Your task to perform on an android device: turn on the 24-hour format for clock Image 0: 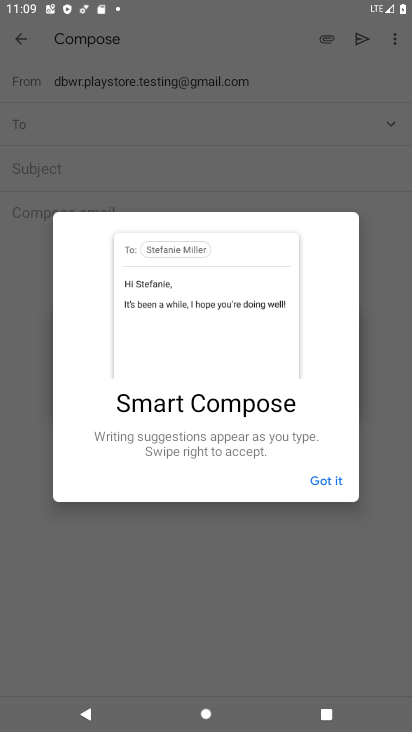
Step 0: press home button
Your task to perform on an android device: turn on the 24-hour format for clock Image 1: 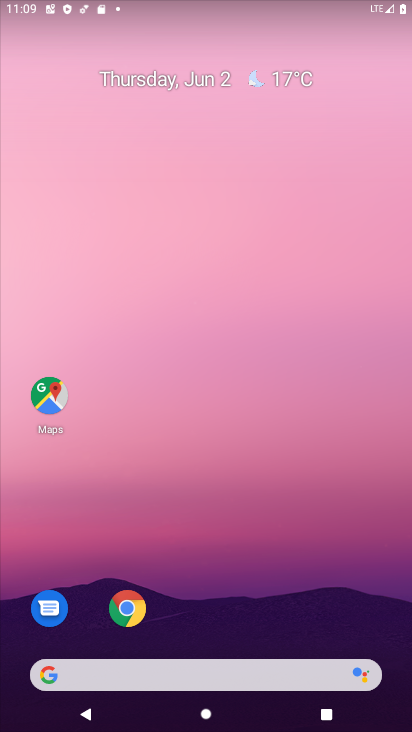
Step 1: drag from (299, 539) to (200, 34)
Your task to perform on an android device: turn on the 24-hour format for clock Image 2: 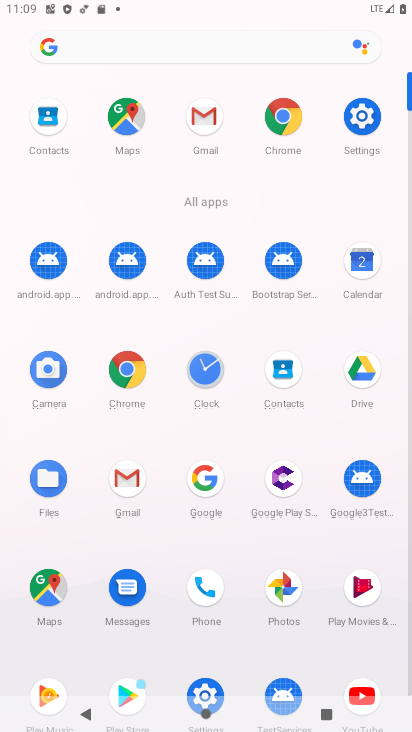
Step 2: click (206, 378)
Your task to perform on an android device: turn on the 24-hour format for clock Image 3: 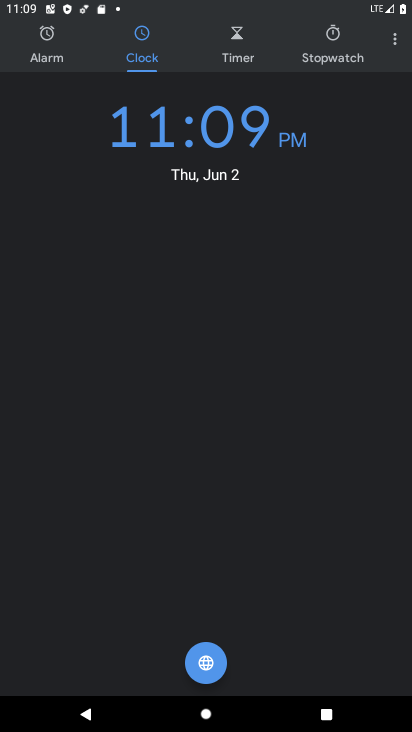
Step 3: click (394, 48)
Your task to perform on an android device: turn on the 24-hour format for clock Image 4: 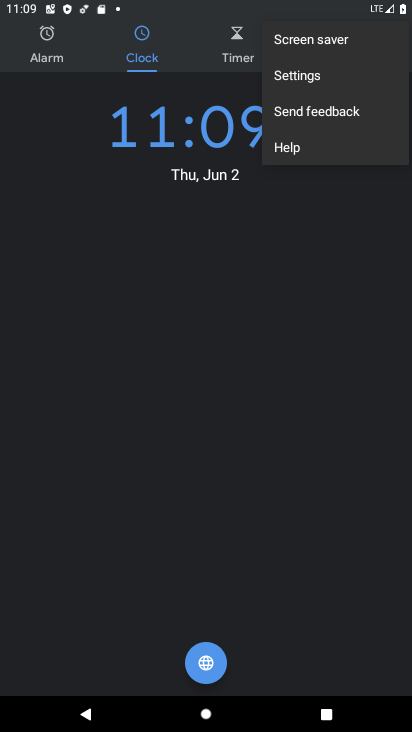
Step 4: click (293, 77)
Your task to perform on an android device: turn on the 24-hour format for clock Image 5: 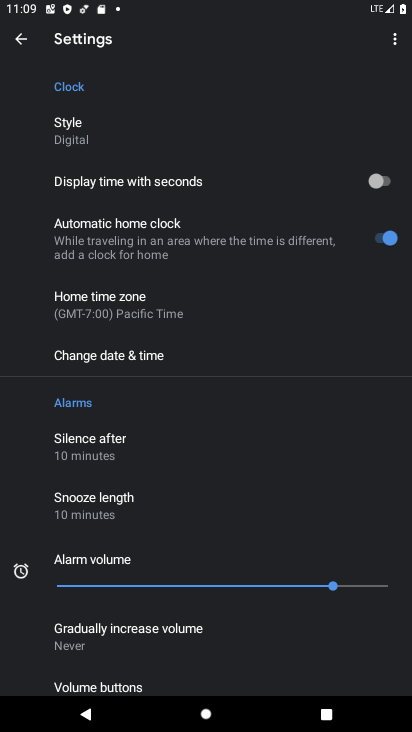
Step 5: click (156, 354)
Your task to perform on an android device: turn on the 24-hour format for clock Image 6: 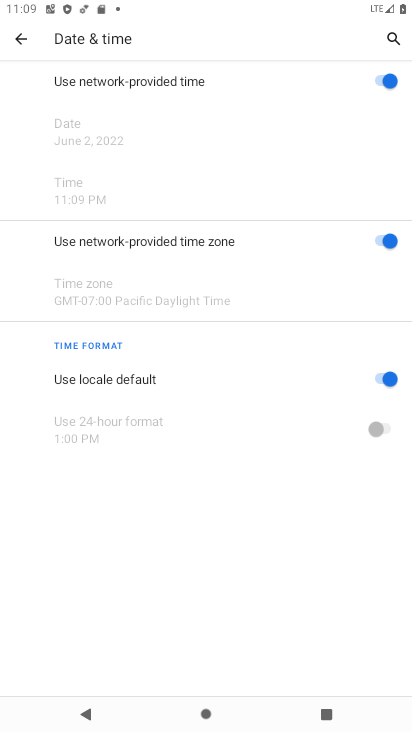
Step 6: click (388, 380)
Your task to perform on an android device: turn on the 24-hour format for clock Image 7: 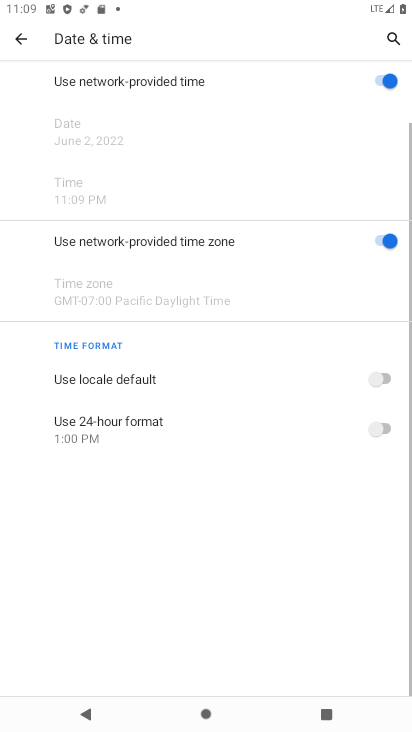
Step 7: click (381, 426)
Your task to perform on an android device: turn on the 24-hour format for clock Image 8: 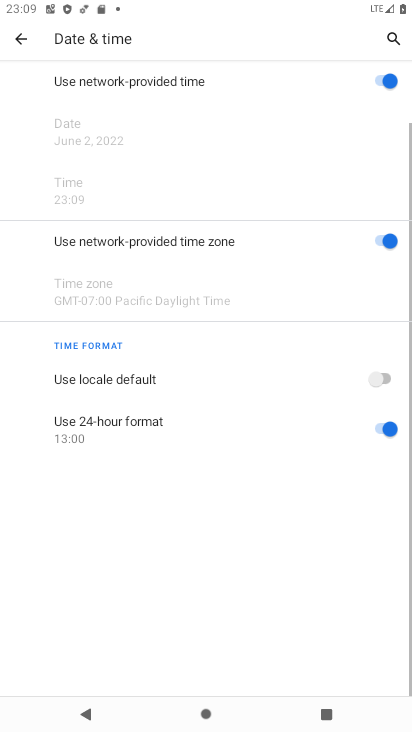
Step 8: task complete